Your task to perform on an android device: make emails show in primary in the gmail app Image 0: 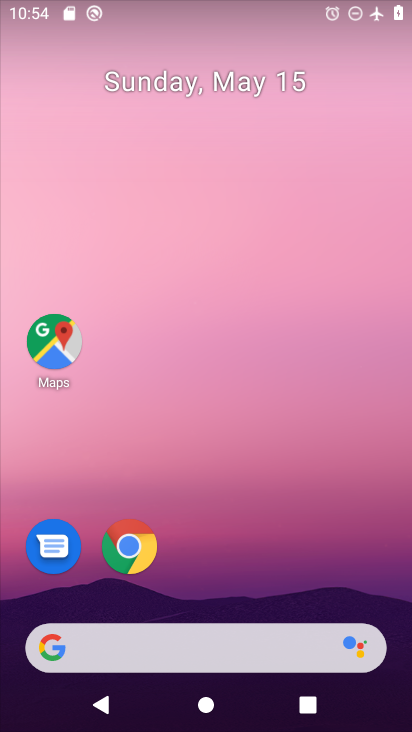
Step 0: drag from (267, 517) to (272, 176)
Your task to perform on an android device: make emails show in primary in the gmail app Image 1: 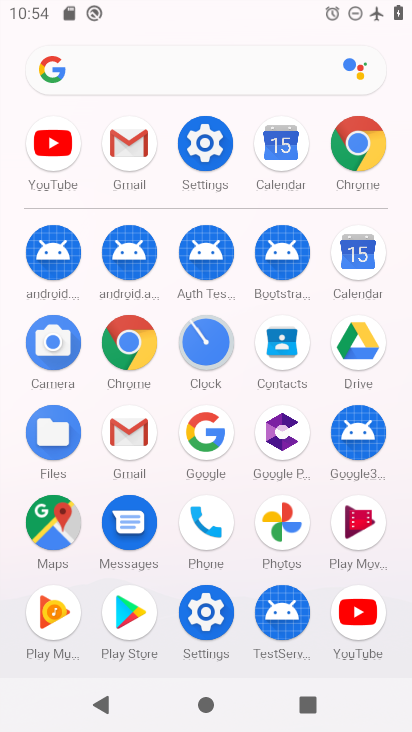
Step 1: click (127, 154)
Your task to perform on an android device: make emails show in primary in the gmail app Image 2: 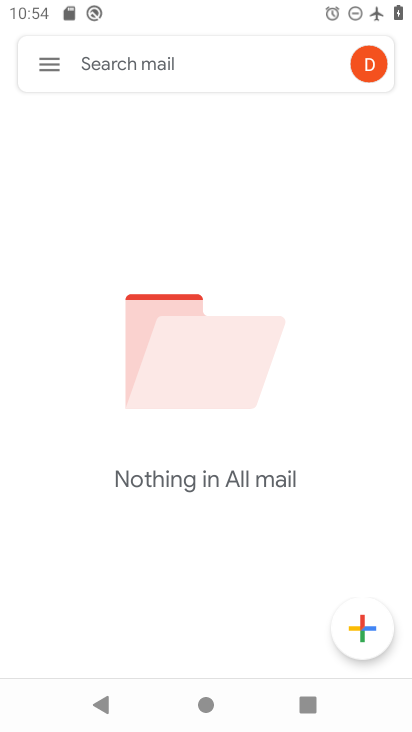
Step 2: click (28, 58)
Your task to perform on an android device: make emails show in primary in the gmail app Image 3: 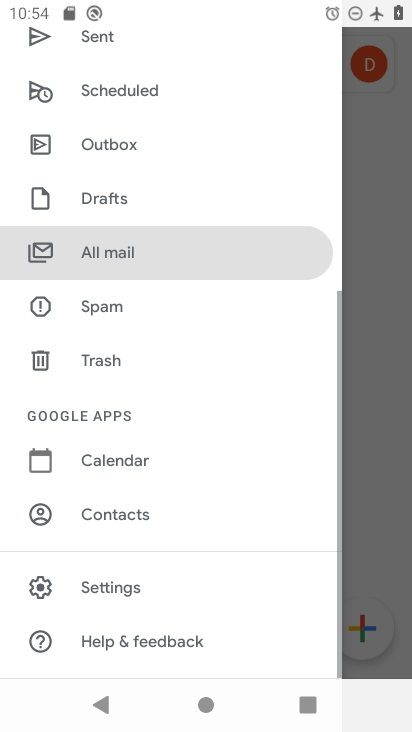
Step 3: click (125, 598)
Your task to perform on an android device: make emails show in primary in the gmail app Image 4: 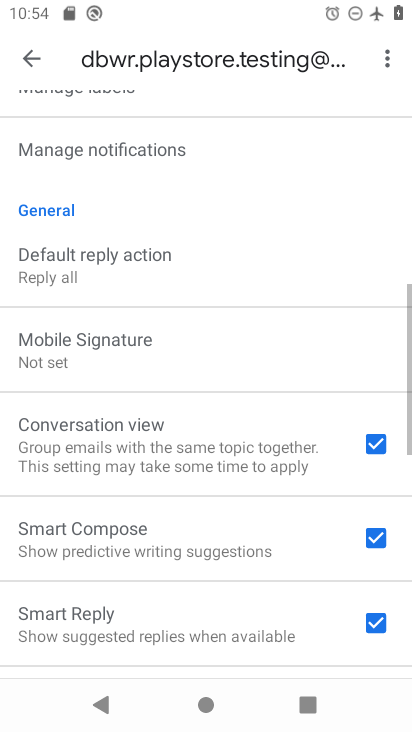
Step 4: drag from (196, 174) to (209, 569)
Your task to perform on an android device: make emails show in primary in the gmail app Image 5: 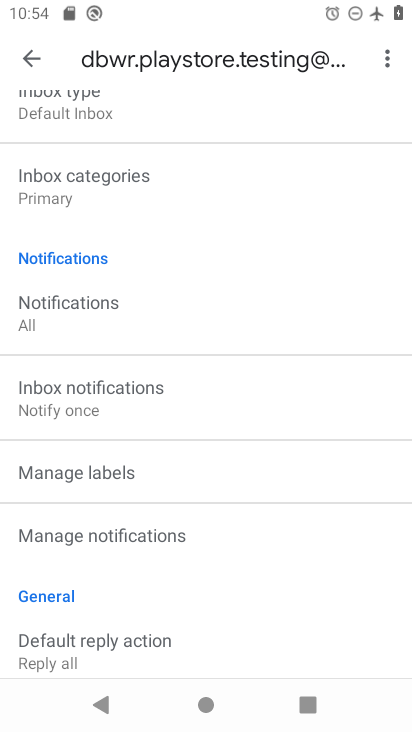
Step 5: drag from (156, 205) to (155, 559)
Your task to perform on an android device: make emails show in primary in the gmail app Image 6: 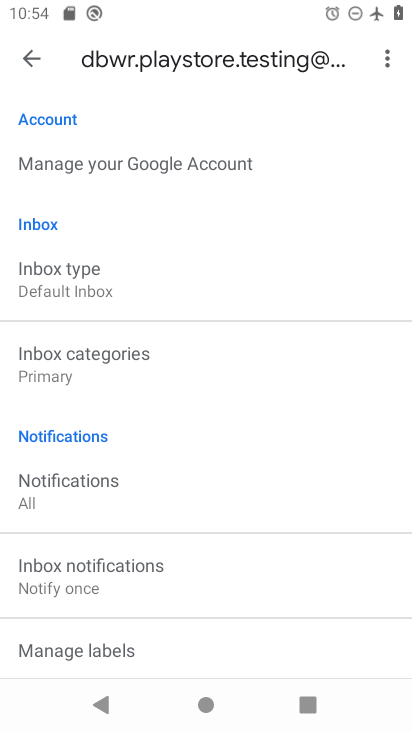
Step 6: click (60, 355)
Your task to perform on an android device: make emails show in primary in the gmail app Image 7: 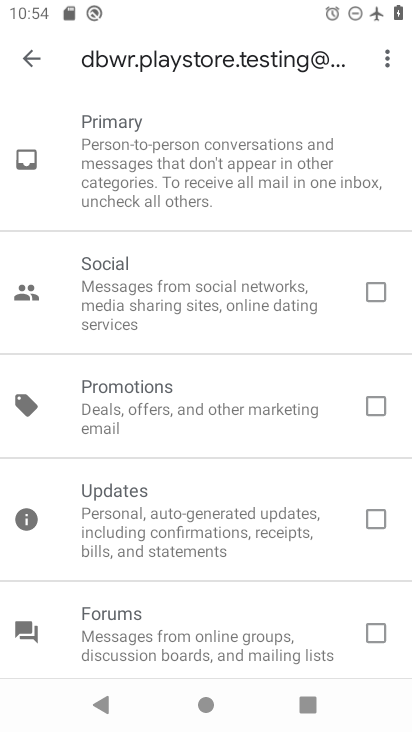
Step 7: task complete